Your task to perform on an android device: Search for vegetarian restaurants on Maps Image 0: 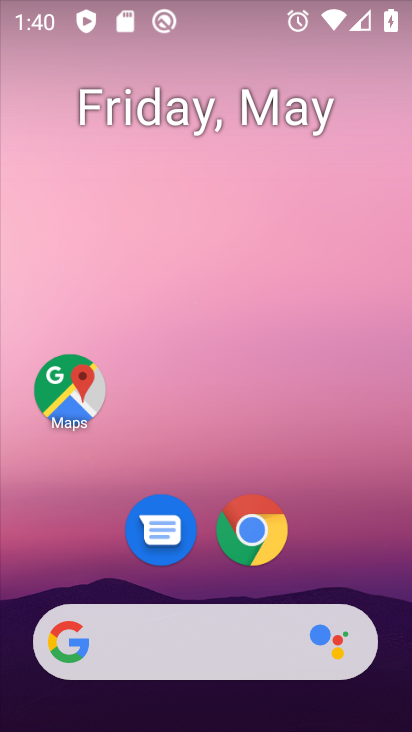
Step 0: click (81, 384)
Your task to perform on an android device: Search for vegetarian restaurants on Maps Image 1: 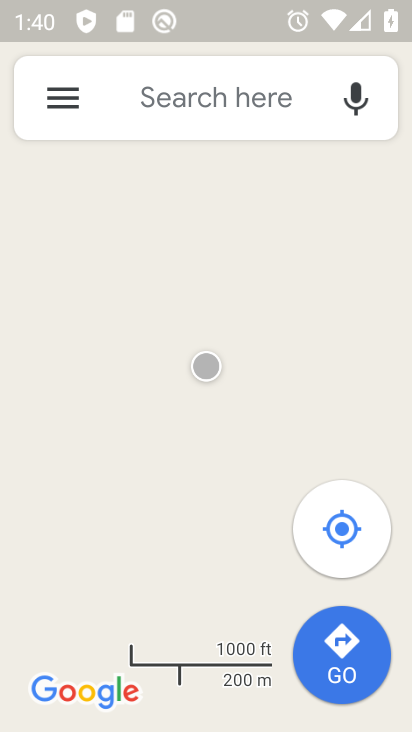
Step 1: click (165, 108)
Your task to perform on an android device: Search for vegetarian restaurants on Maps Image 2: 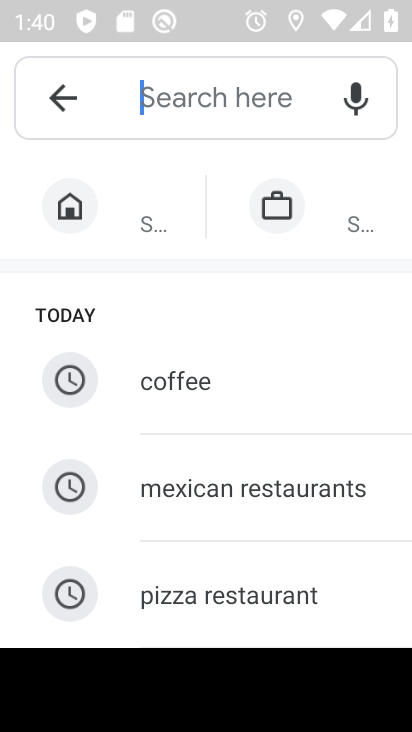
Step 2: type "vegetarian restaurants"
Your task to perform on an android device: Search for vegetarian restaurants on Maps Image 3: 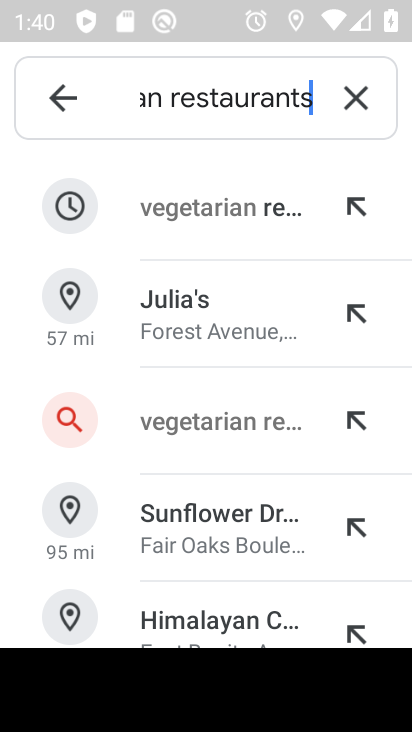
Step 3: click (173, 198)
Your task to perform on an android device: Search for vegetarian restaurants on Maps Image 4: 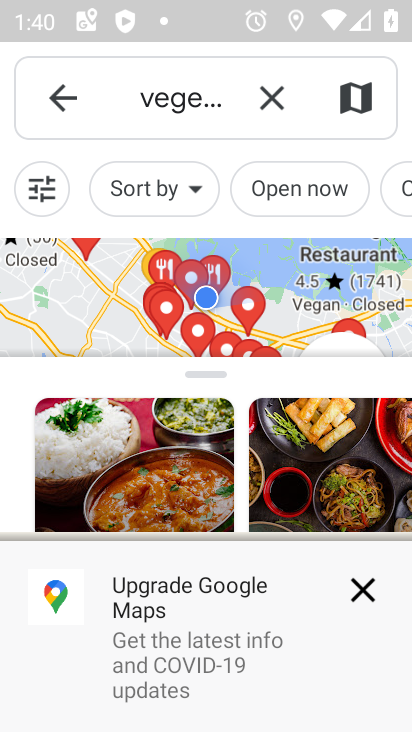
Step 4: click (366, 588)
Your task to perform on an android device: Search for vegetarian restaurants on Maps Image 5: 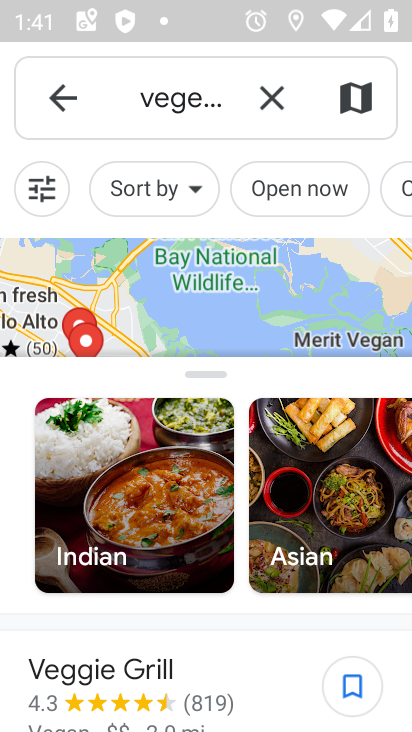
Step 5: task complete